Your task to perform on an android device: uninstall "Google Maps" Image 0: 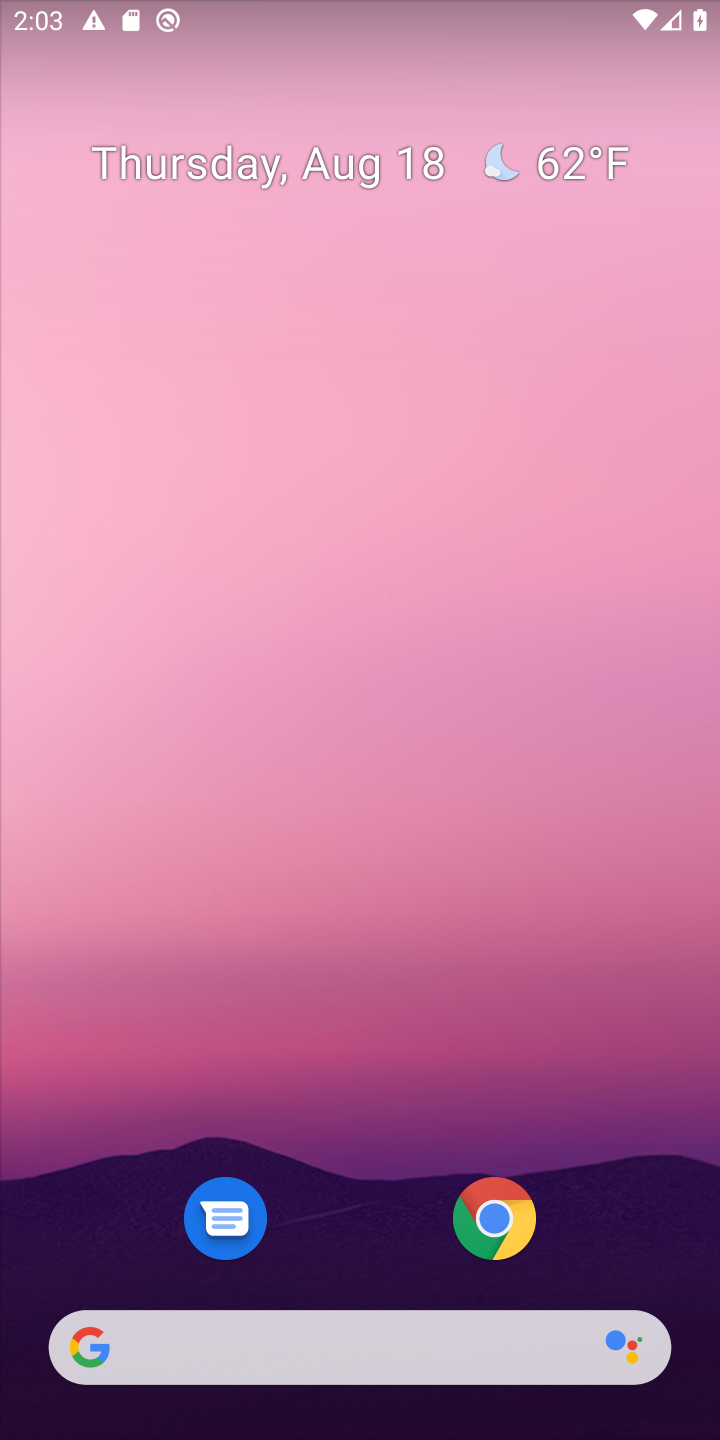
Step 0: drag from (340, 1090) to (410, 459)
Your task to perform on an android device: uninstall "Google Maps" Image 1: 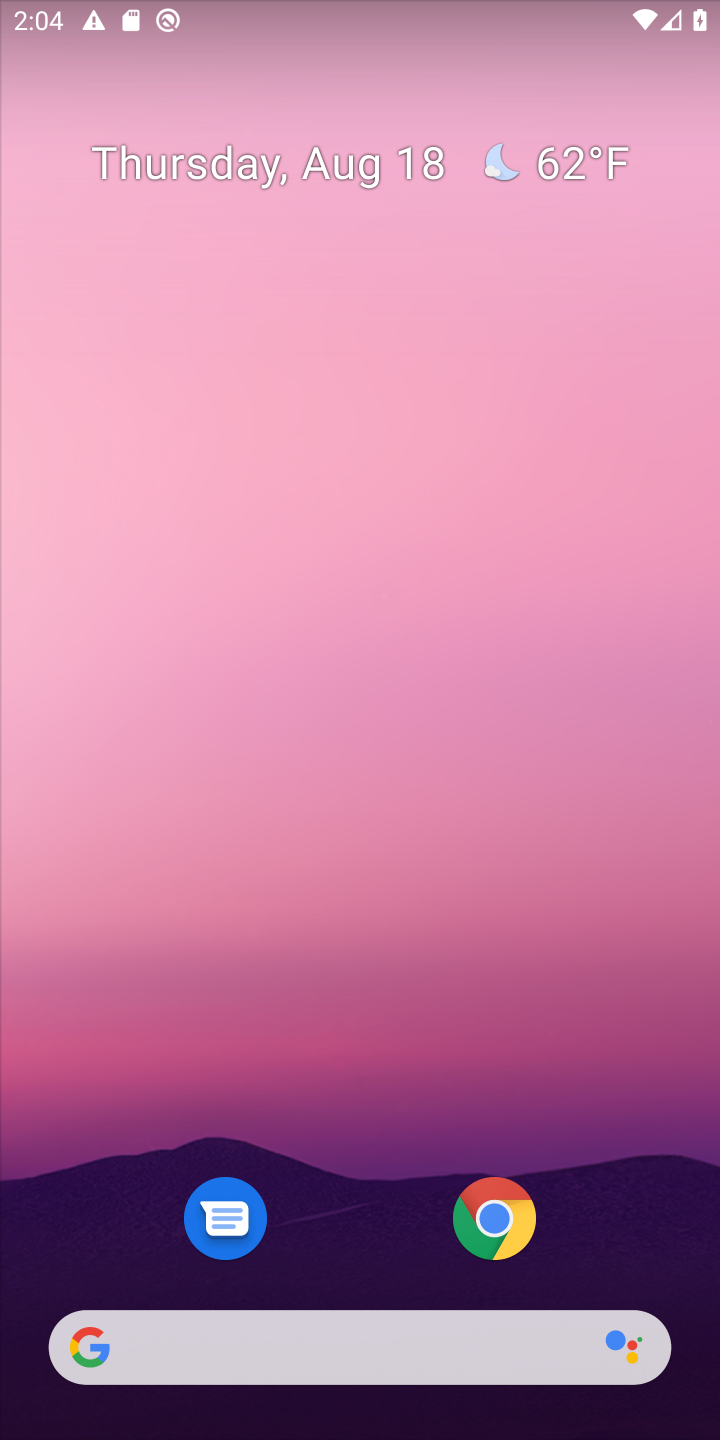
Step 1: drag from (344, 1136) to (382, 334)
Your task to perform on an android device: uninstall "Google Maps" Image 2: 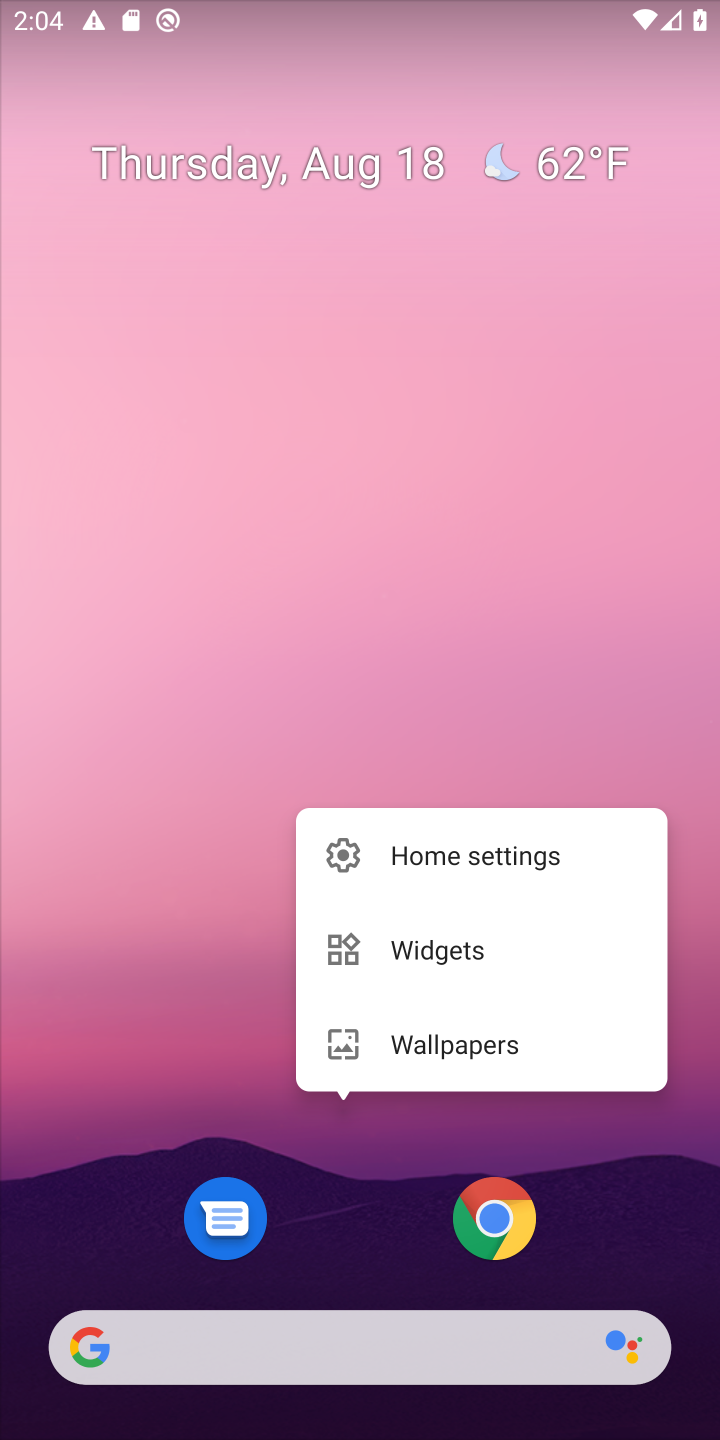
Step 2: click (349, 1172)
Your task to perform on an android device: uninstall "Google Maps" Image 3: 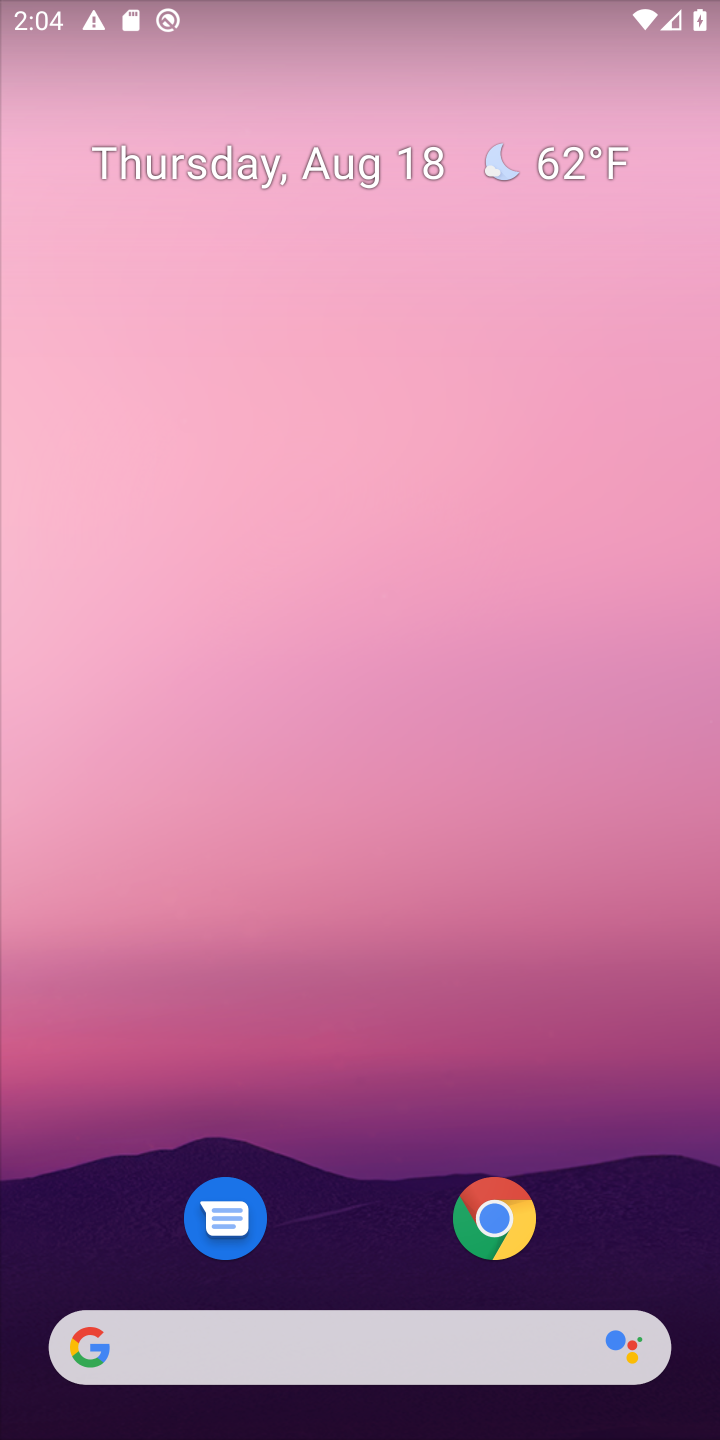
Step 3: drag from (420, 532) to (420, 175)
Your task to perform on an android device: uninstall "Google Maps" Image 4: 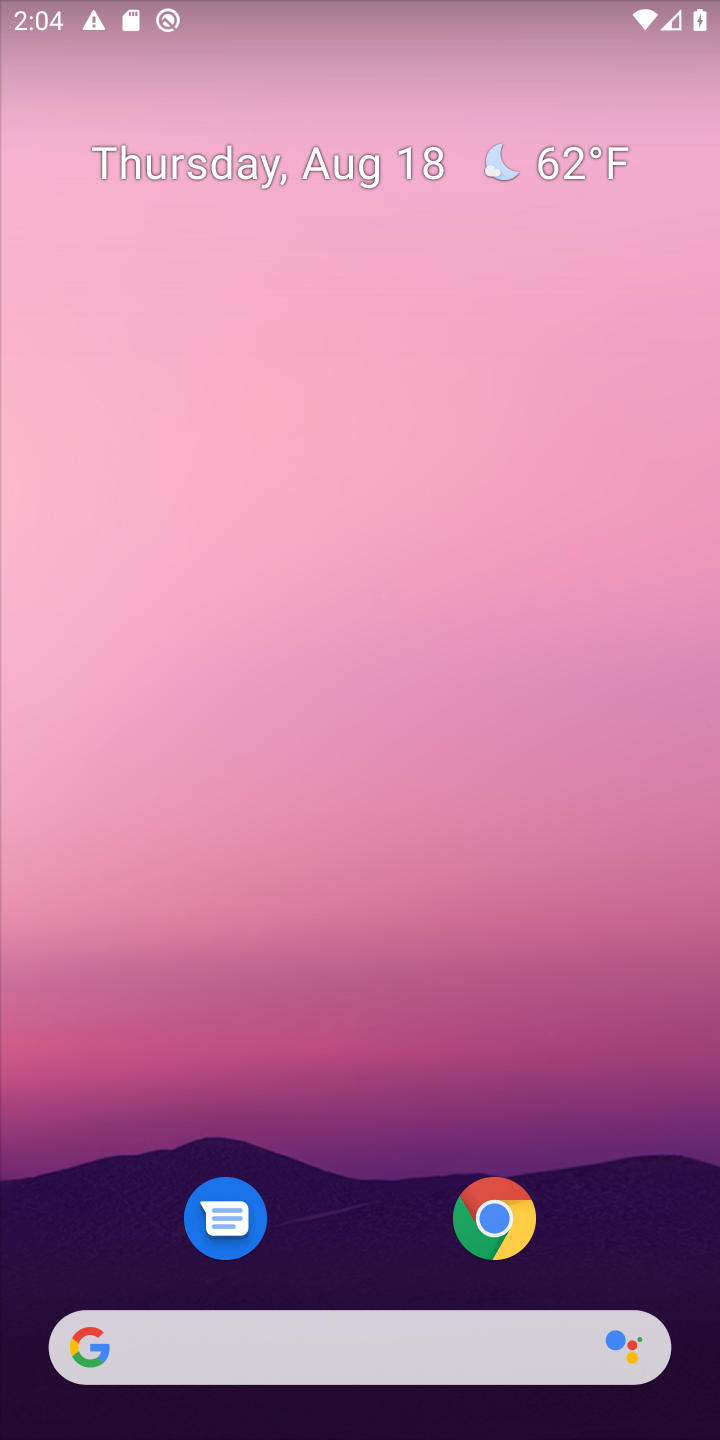
Step 4: drag from (323, 1143) to (443, 418)
Your task to perform on an android device: uninstall "Google Maps" Image 5: 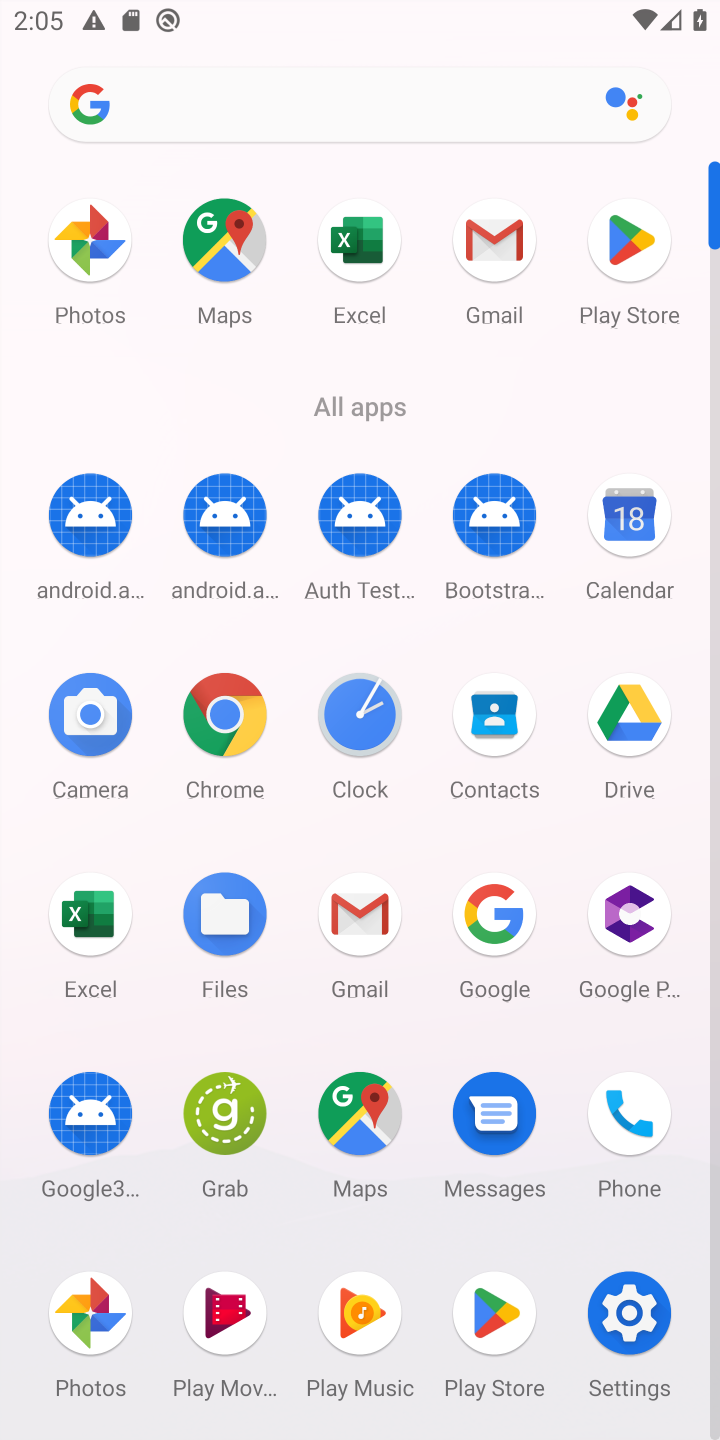
Step 5: click (597, 258)
Your task to perform on an android device: uninstall "Google Maps" Image 6: 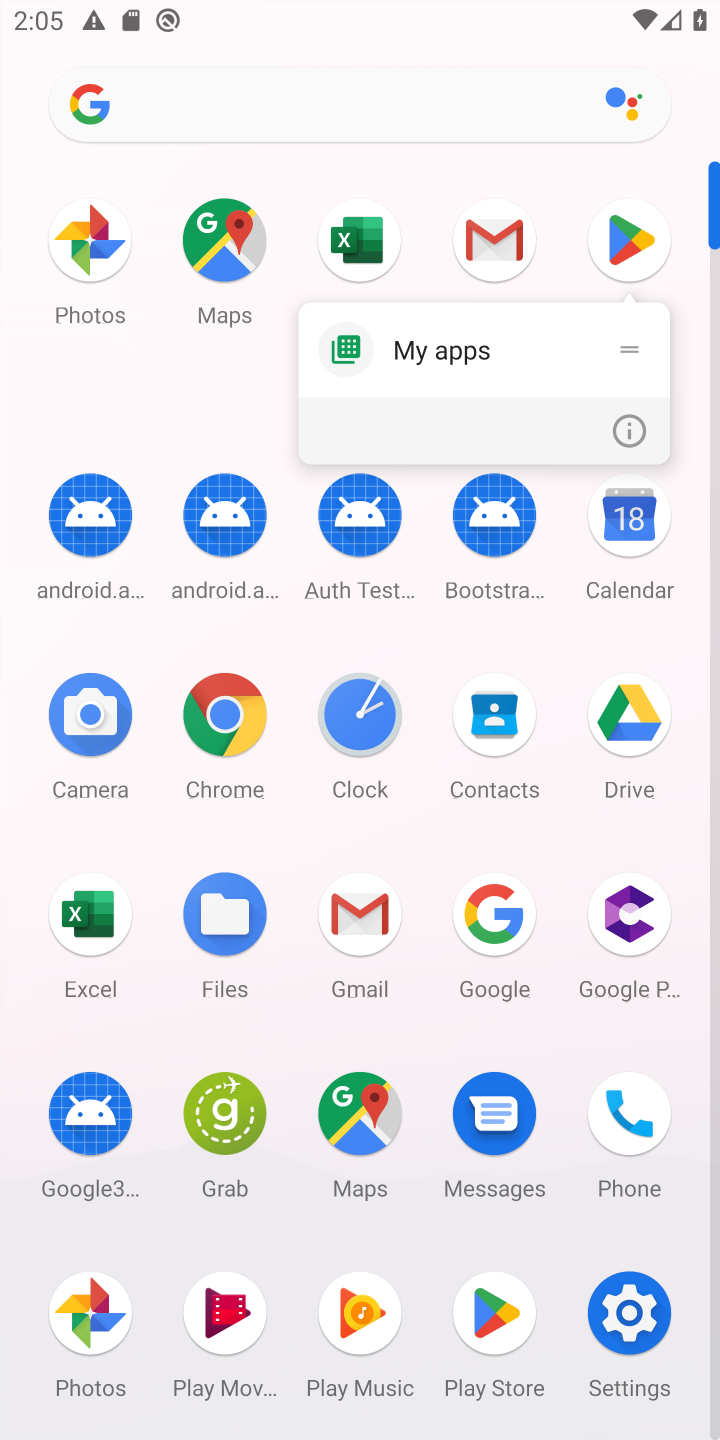
Step 6: click (611, 243)
Your task to perform on an android device: uninstall "Google Maps" Image 7: 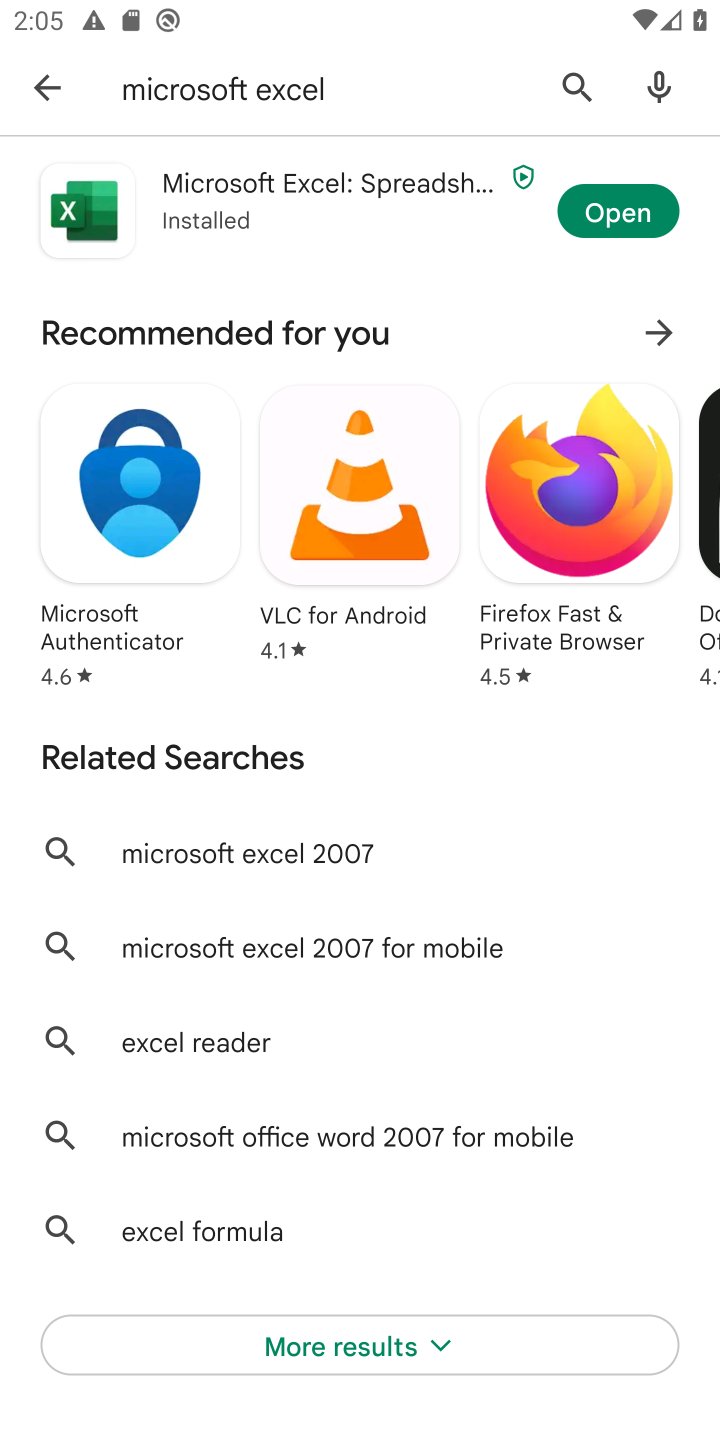
Step 7: click (570, 80)
Your task to perform on an android device: uninstall "Google Maps" Image 8: 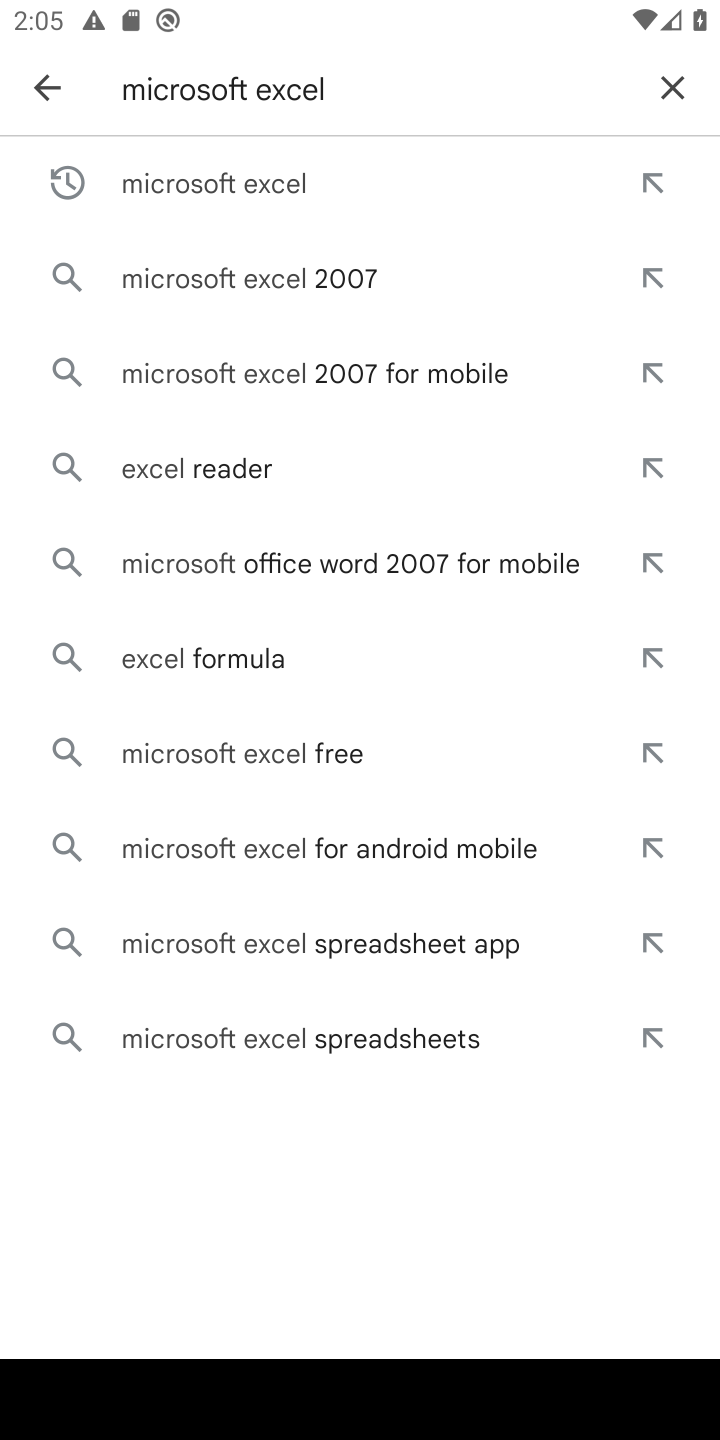
Step 8: click (685, 88)
Your task to perform on an android device: uninstall "Google Maps" Image 9: 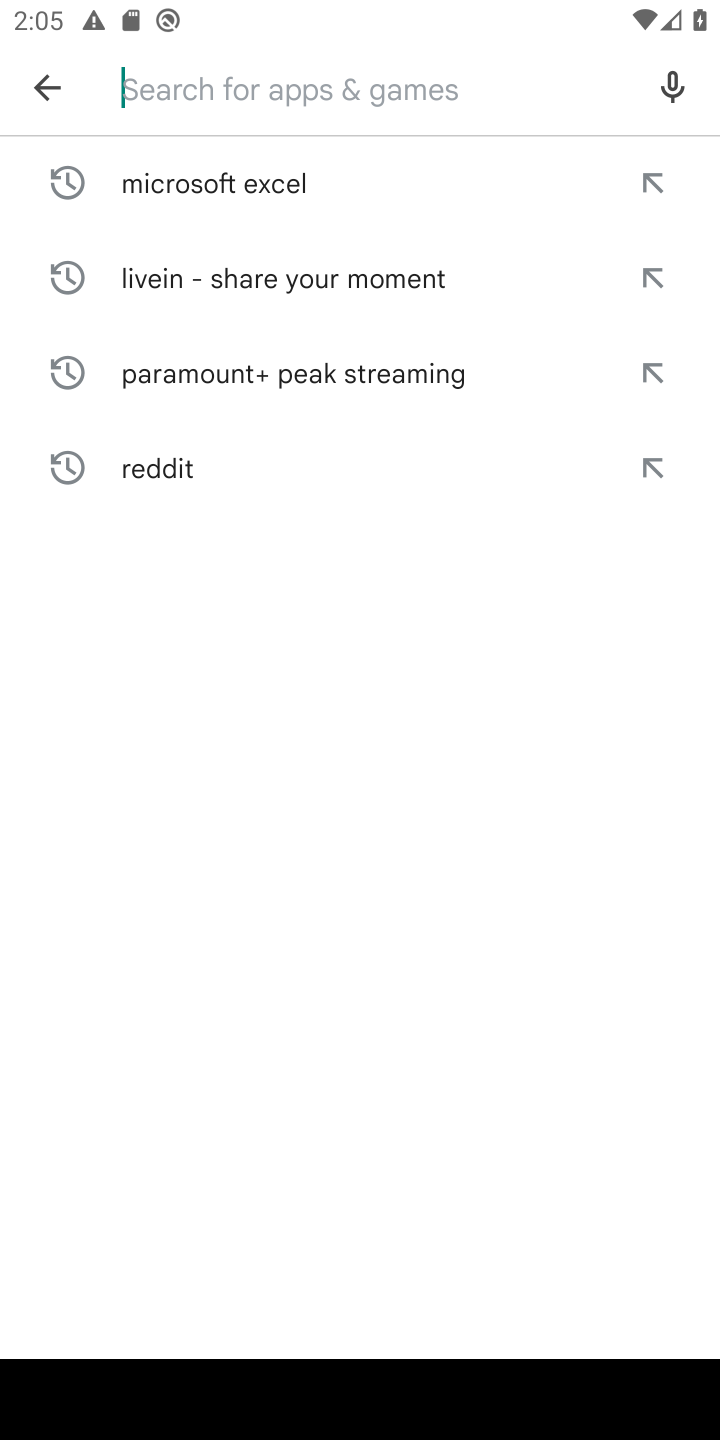
Step 9: type "Google Maps"
Your task to perform on an android device: uninstall "Google Maps" Image 10: 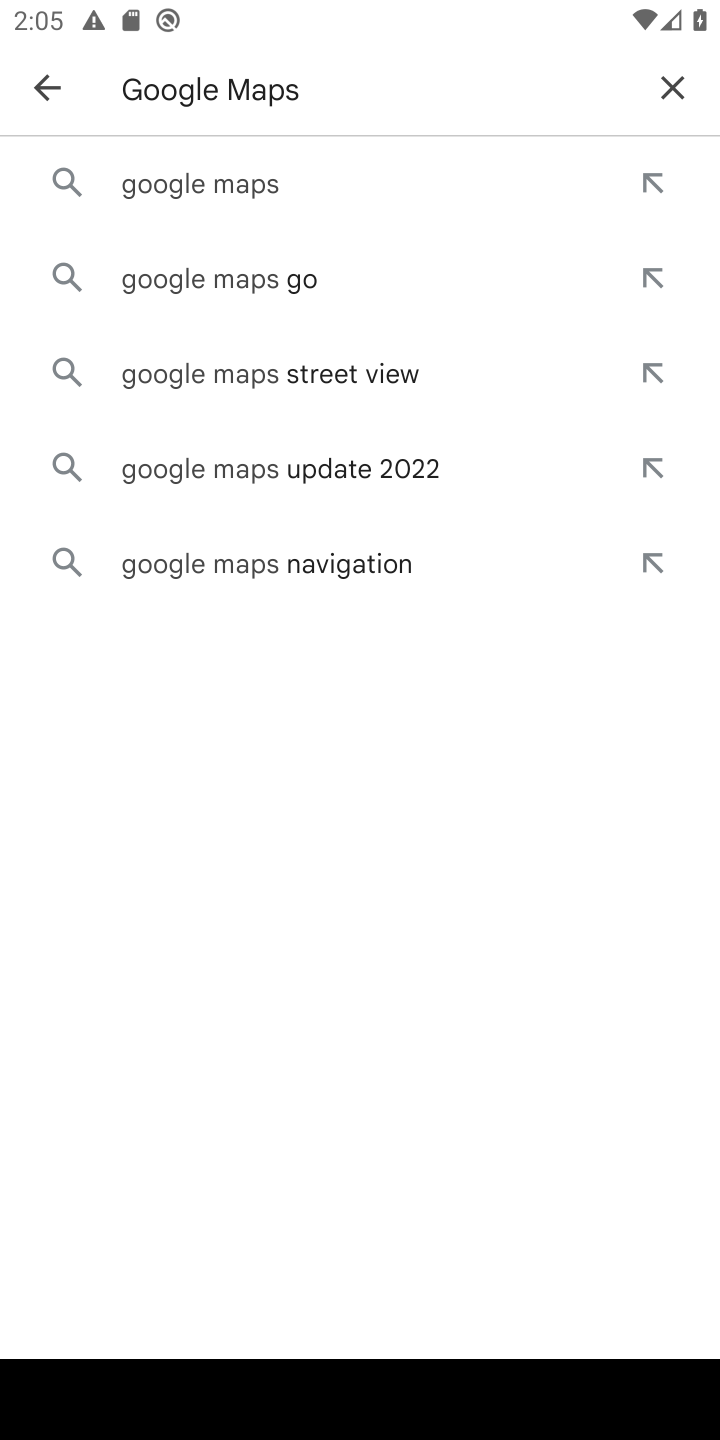
Step 10: click (230, 174)
Your task to perform on an android device: uninstall "Google Maps" Image 11: 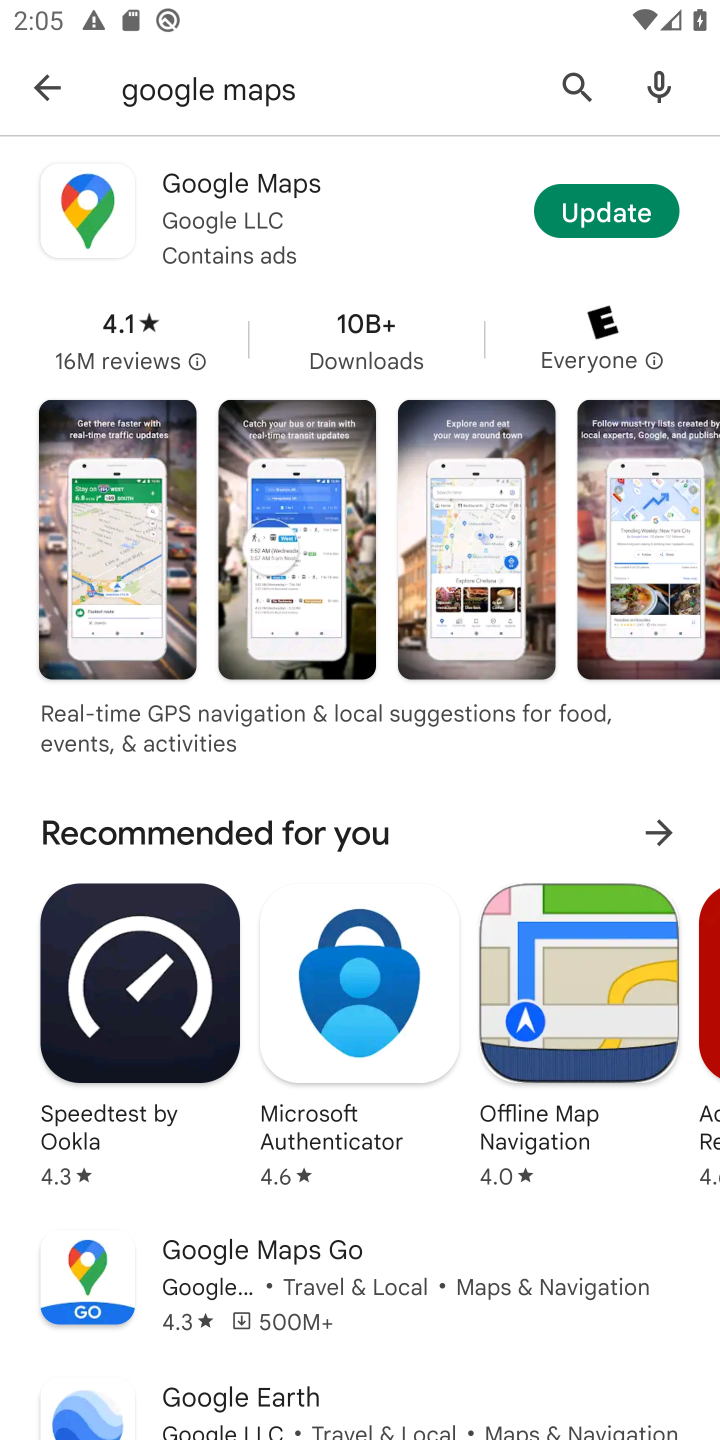
Step 11: click (254, 211)
Your task to perform on an android device: uninstall "Google Maps" Image 12: 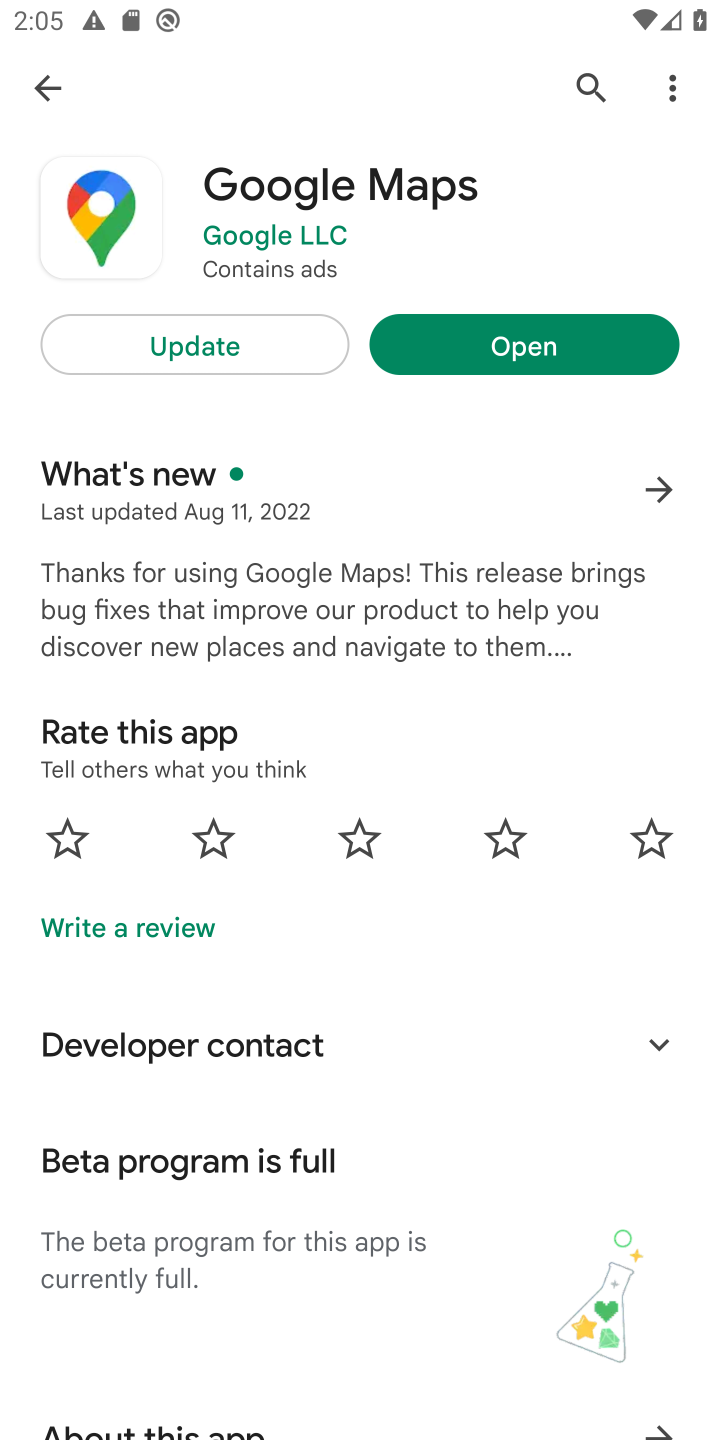
Step 12: click (173, 333)
Your task to perform on an android device: uninstall "Google Maps" Image 13: 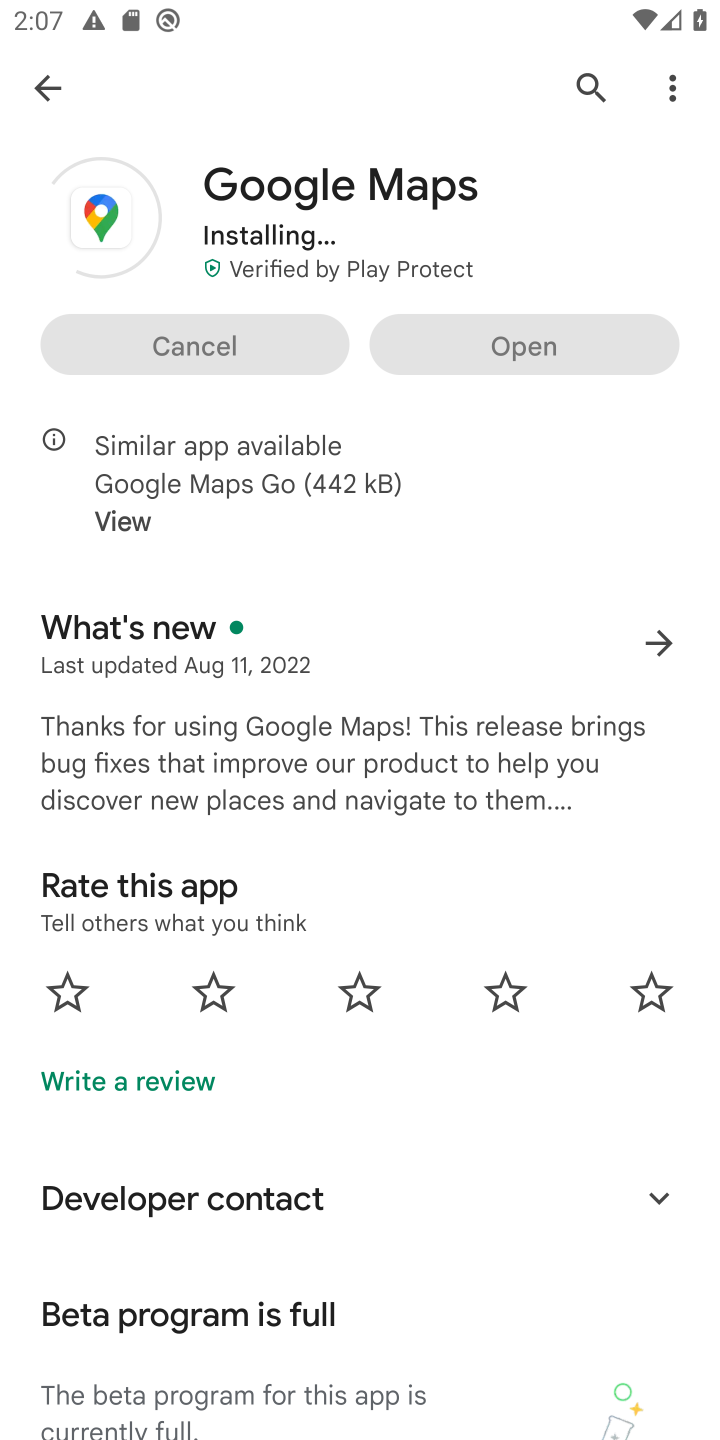
Step 13: task complete